Your task to perform on an android device: refresh tabs in the chrome app Image 0: 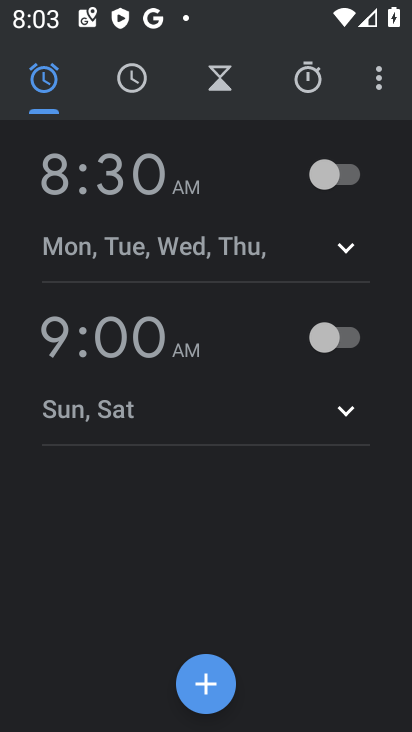
Step 0: press home button
Your task to perform on an android device: refresh tabs in the chrome app Image 1: 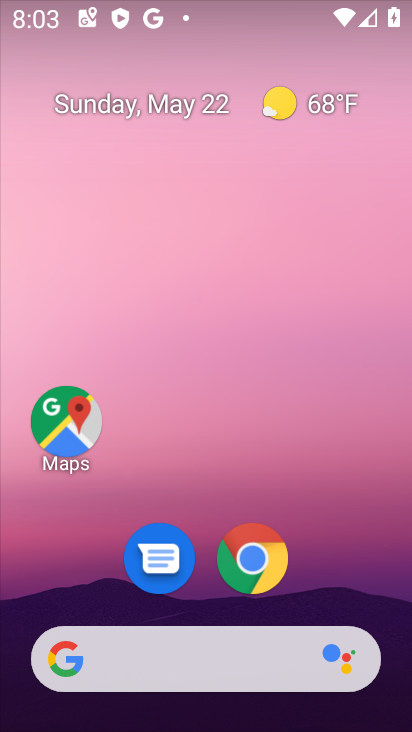
Step 1: click (217, 578)
Your task to perform on an android device: refresh tabs in the chrome app Image 2: 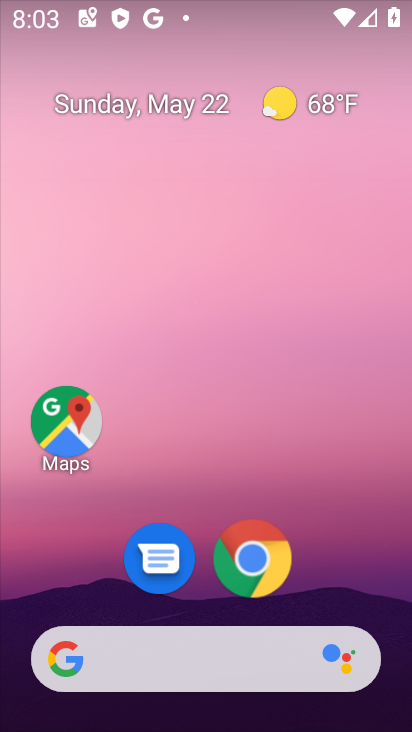
Step 2: click (257, 533)
Your task to perform on an android device: refresh tabs in the chrome app Image 3: 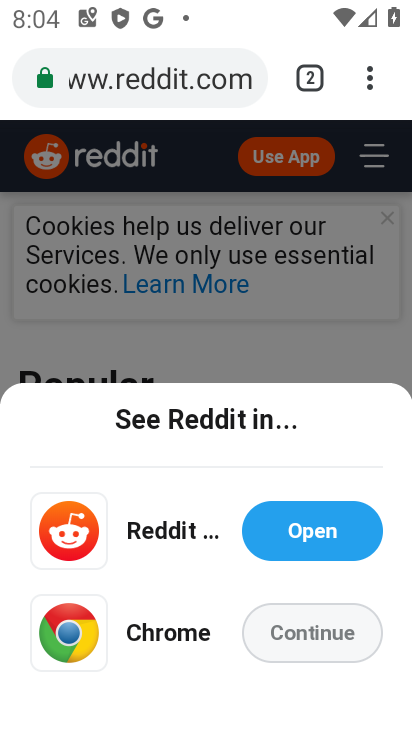
Step 3: click (402, 59)
Your task to perform on an android device: refresh tabs in the chrome app Image 4: 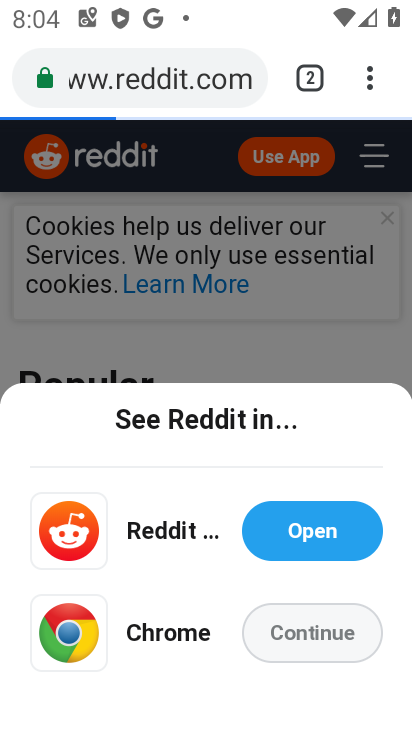
Step 4: click (380, 81)
Your task to perform on an android device: refresh tabs in the chrome app Image 5: 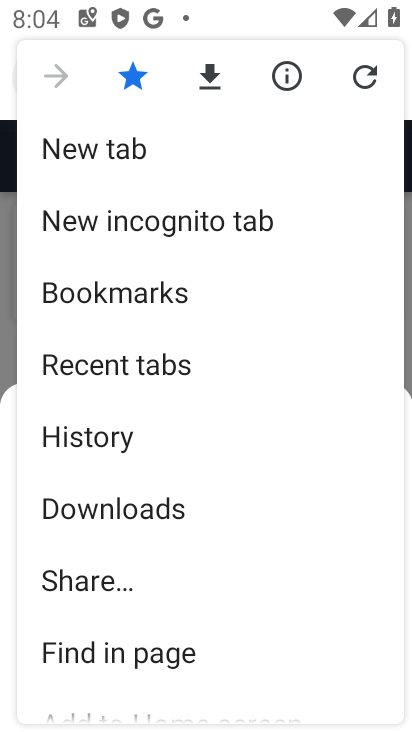
Step 5: drag from (201, 518) to (246, 121)
Your task to perform on an android device: refresh tabs in the chrome app Image 6: 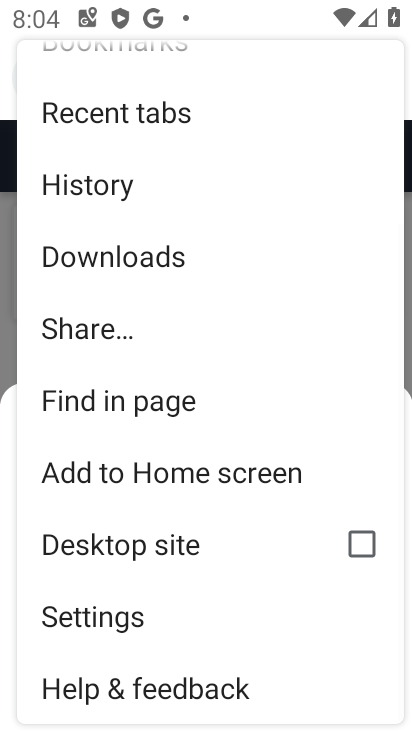
Step 6: drag from (315, 137) to (254, 679)
Your task to perform on an android device: refresh tabs in the chrome app Image 7: 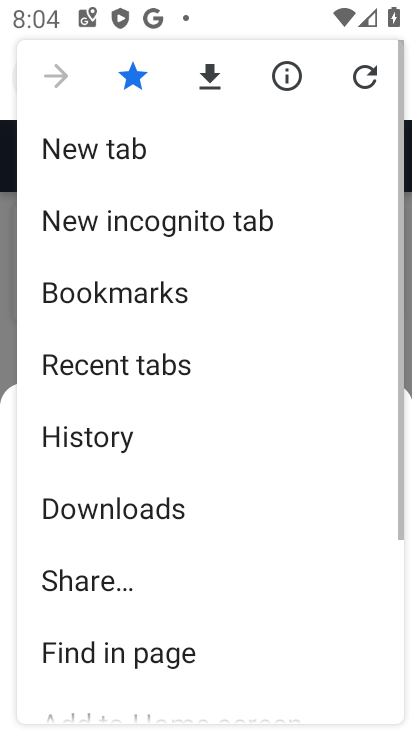
Step 7: click (348, 57)
Your task to perform on an android device: refresh tabs in the chrome app Image 8: 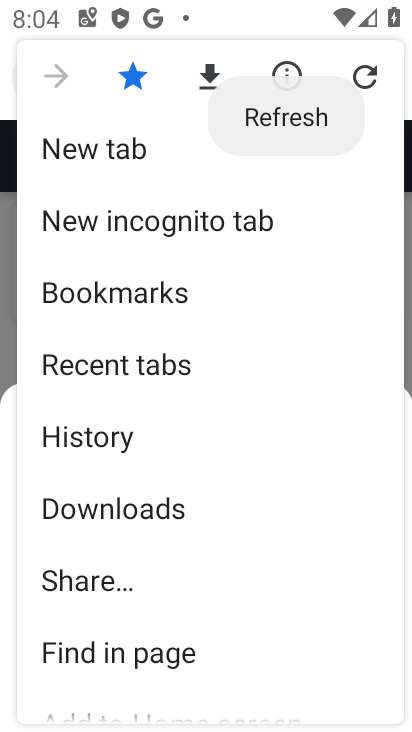
Step 8: task complete